Your task to perform on an android device: Open Amazon Image 0: 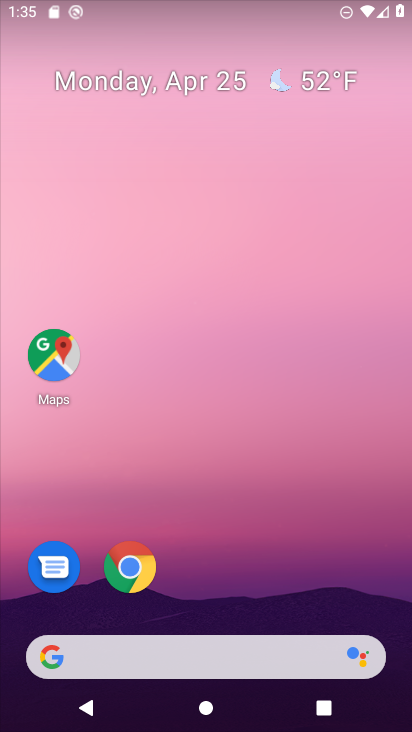
Step 0: click (133, 564)
Your task to perform on an android device: Open Amazon Image 1: 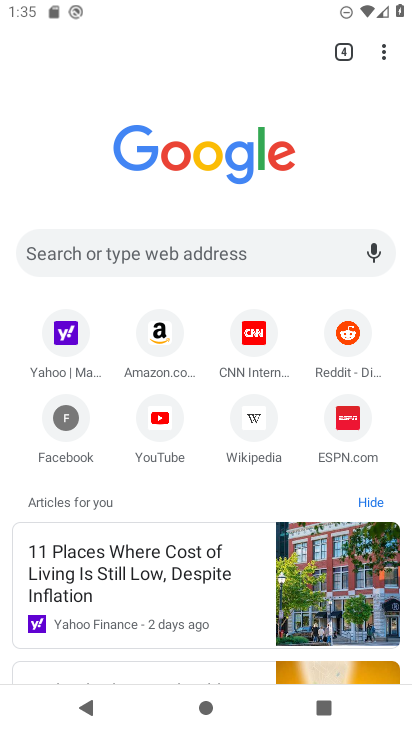
Step 1: click (160, 331)
Your task to perform on an android device: Open Amazon Image 2: 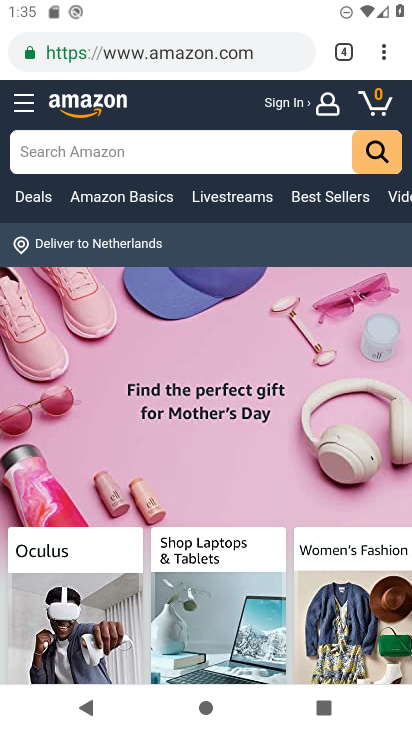
Step 2: task complete